Your task to perform on an android device: Open accessibility settings Image 0: 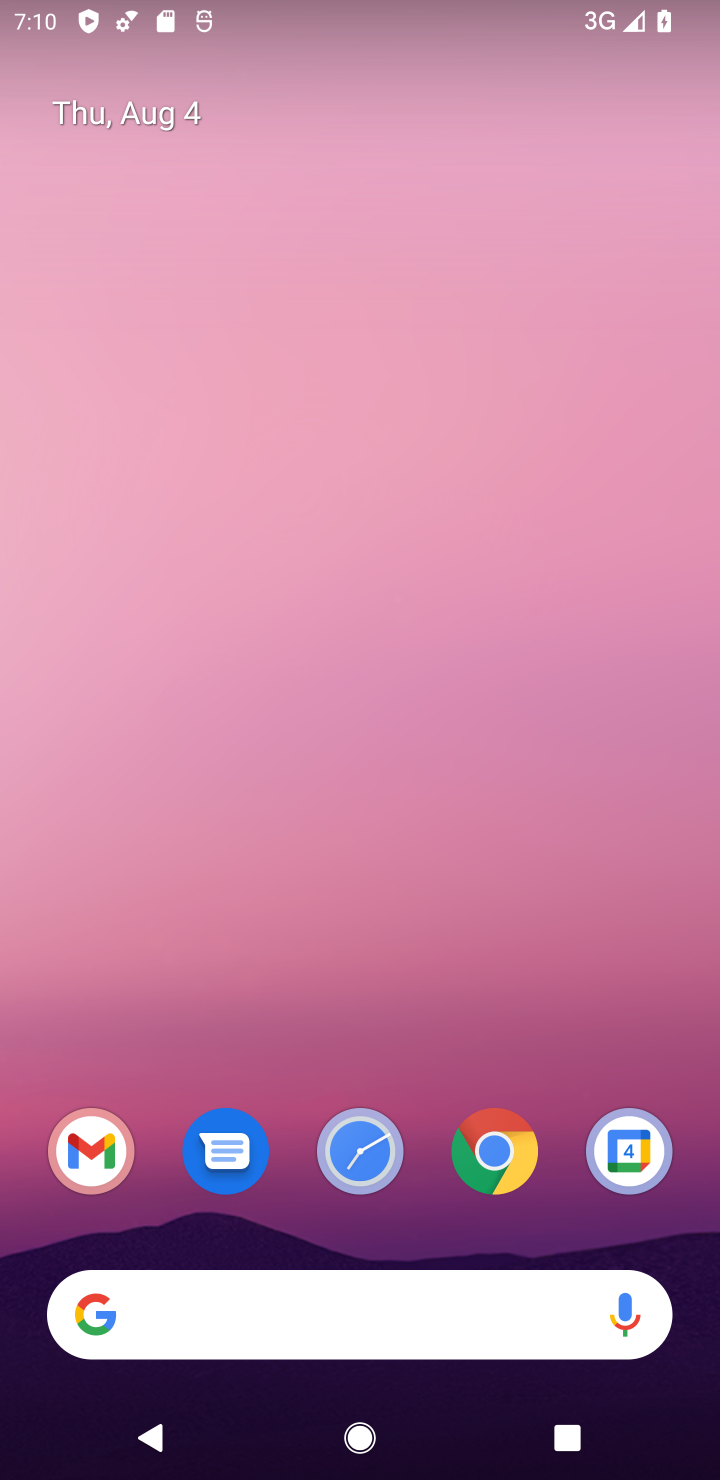
Step 0: drag from (455, 1071) to (439, 20)
Your task to perform on an android device: Open accessibility settings Image 1: 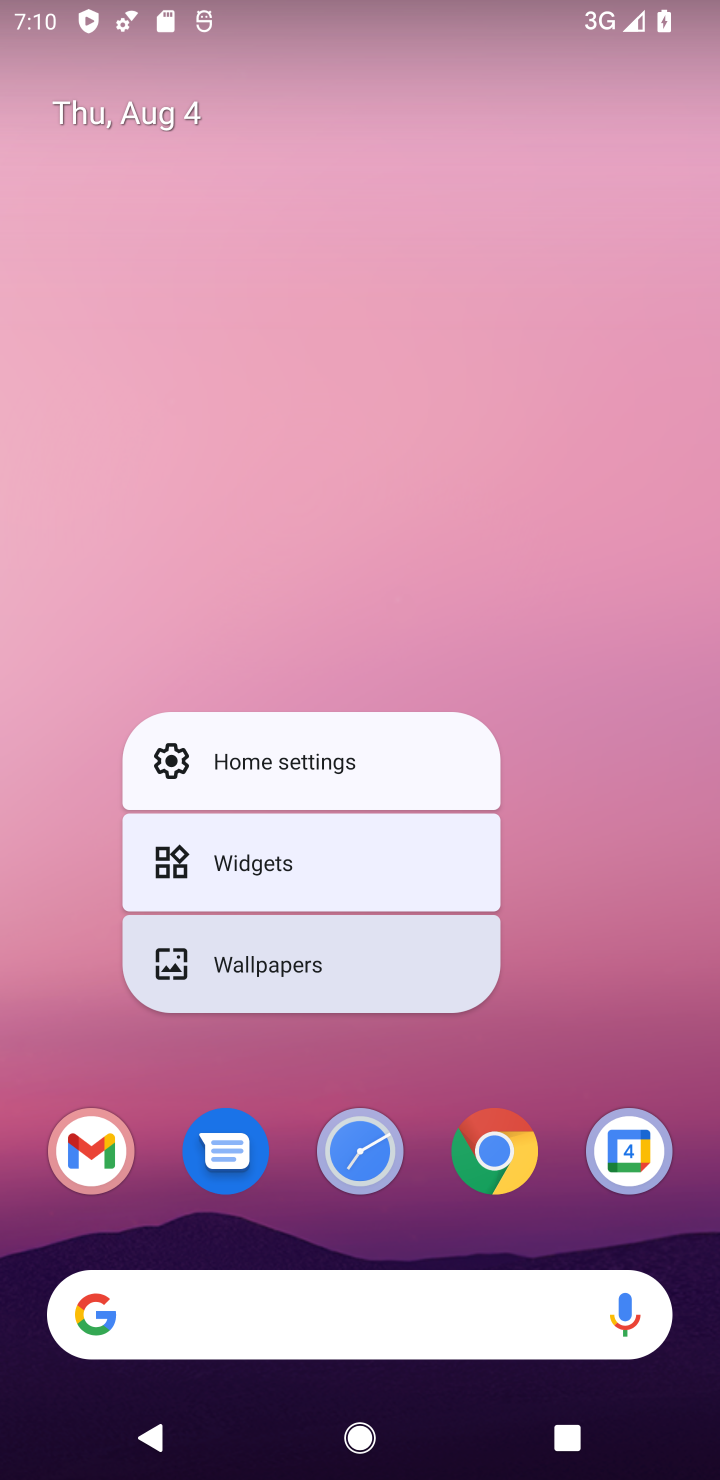
Step 1: drag from (699, 1229) to (387, 110)
Your task to perform on an android device: Open accessibility settings Image 2: 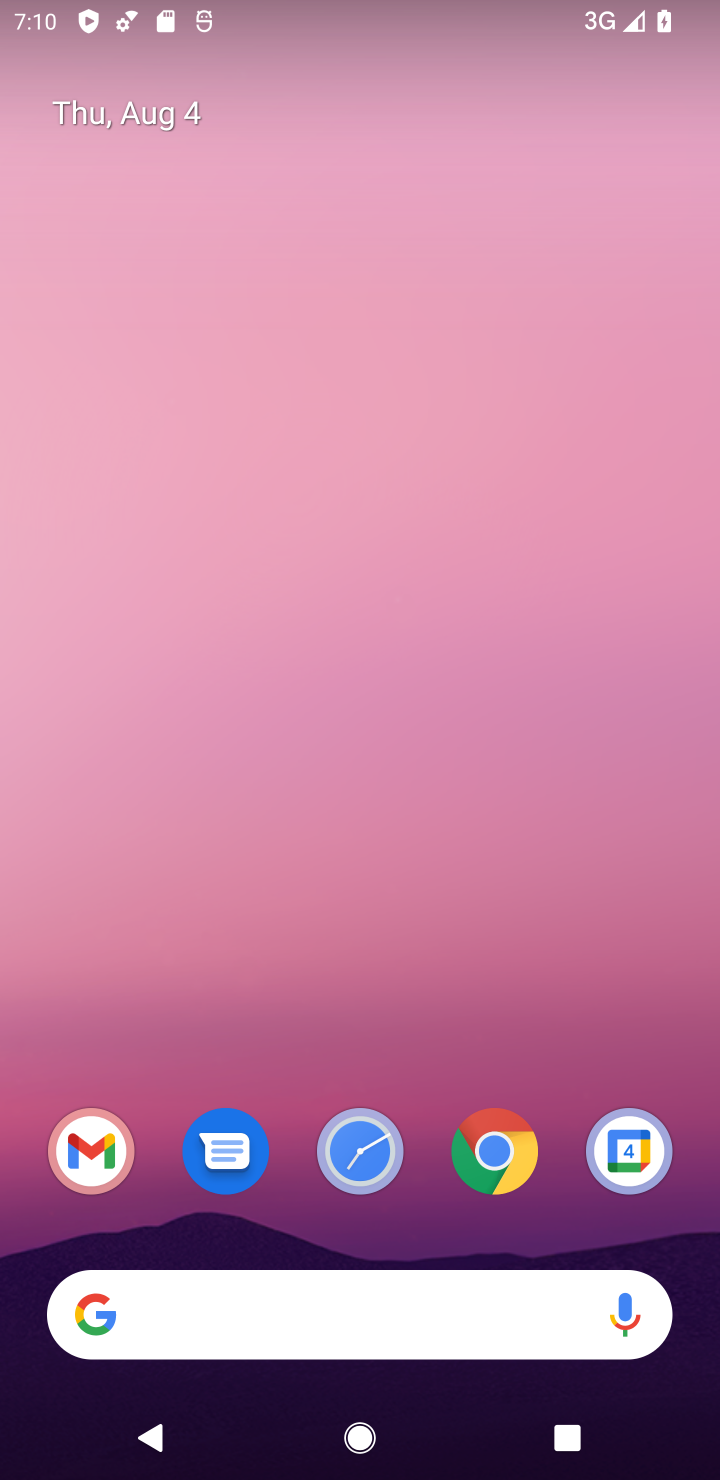
Step 2: drag from (570, 1252) to (317, 67)
Your task to perform on an android device: Open accessibility settings Image 3: 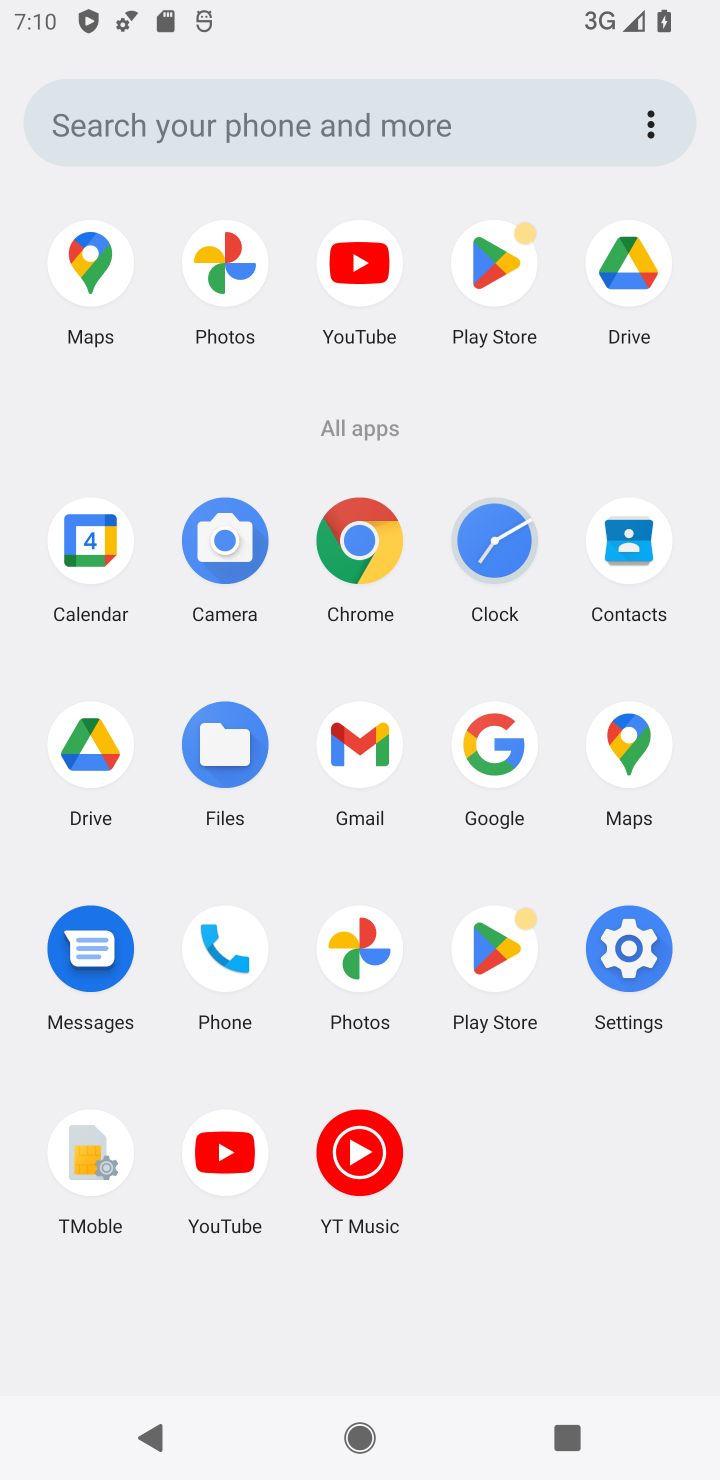
Step 3: click (635, 970)
Your task to perform on an android device: Open accessibility settings Image 4: 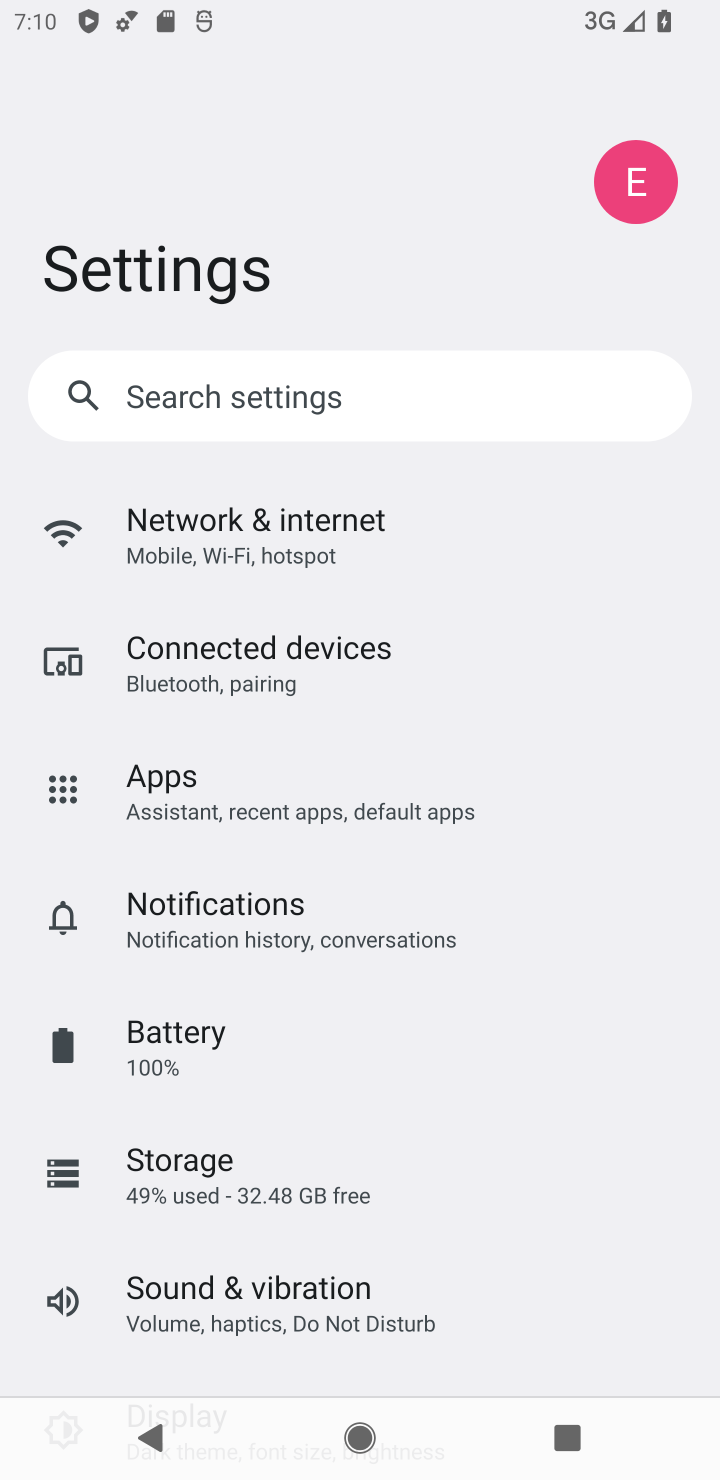
Step 4: drag from (405, 1394) to (282, 533)
Your task to perform on an android device: Open accessibility settings Image 5: 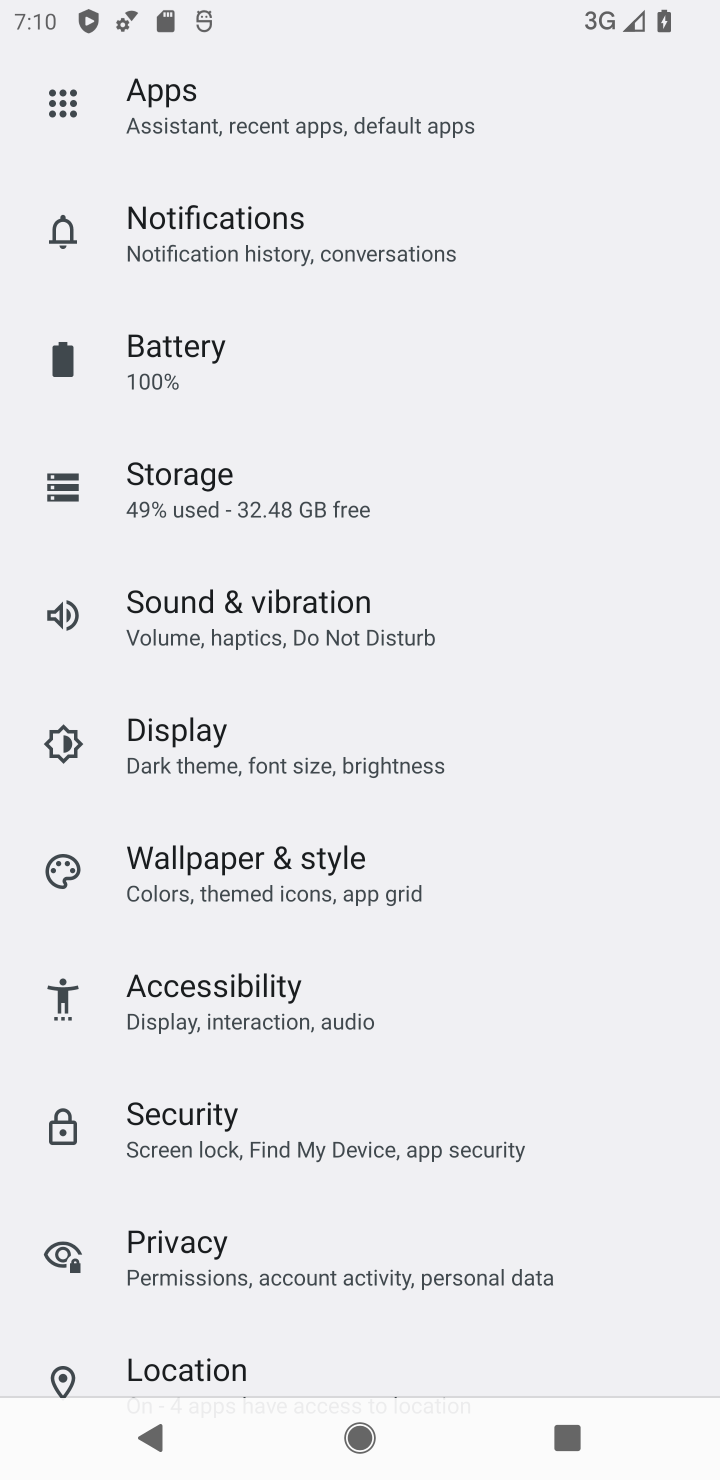
Step 5: click (358, 1030)
Your task to perform on an android device: Open accessibility settings Image 6: 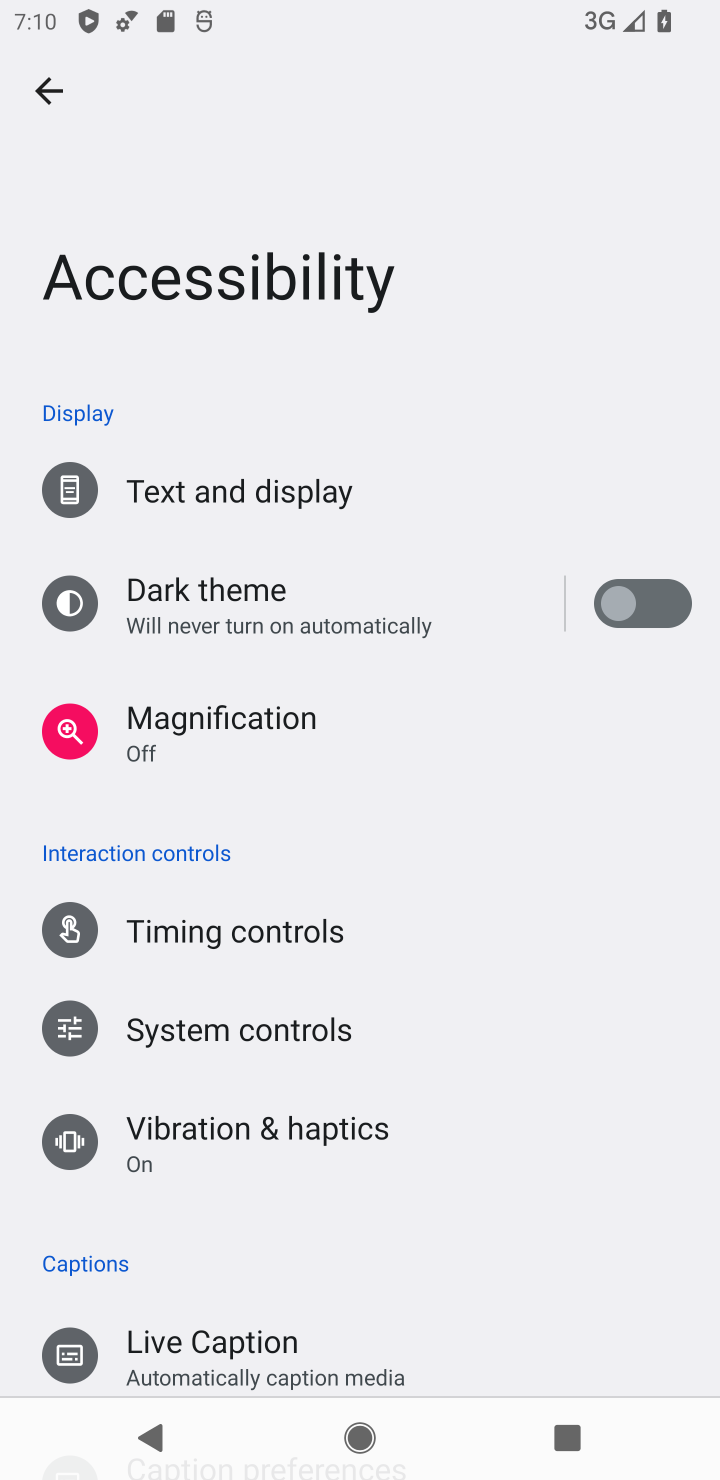
Step 6: task complete